Your task to perform on an android device: turn off location history Image 0: 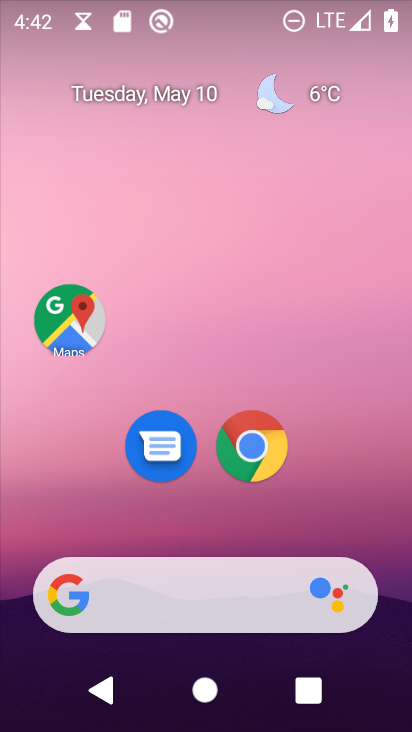
Step 0: drag from (203, 175) to (203, 116)
Your task to perform on an android device: turn off location history Image 1: 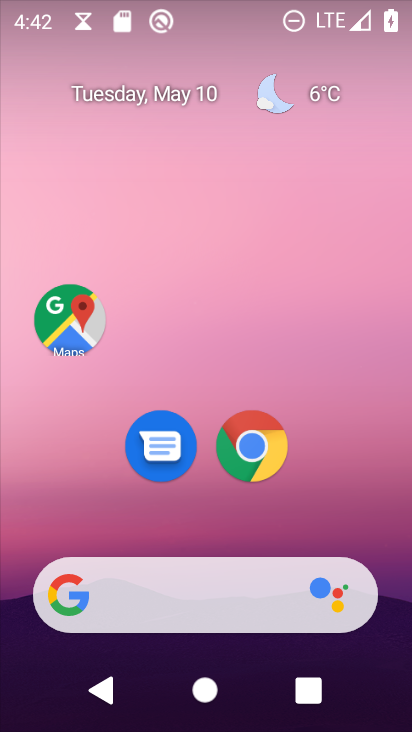
Step 1: drag from (209, 492) to (175, 61)
Your task to perform on an android device: turn off location history Image 2: 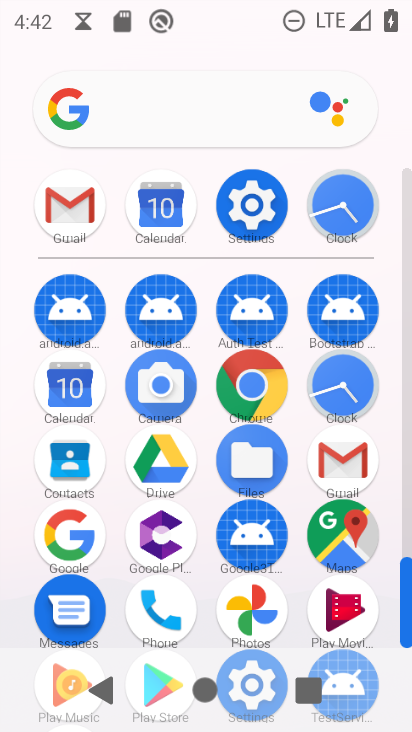
Step 2: click (242, 198)
Your task to perform on an android device: turn off location history Image 3: 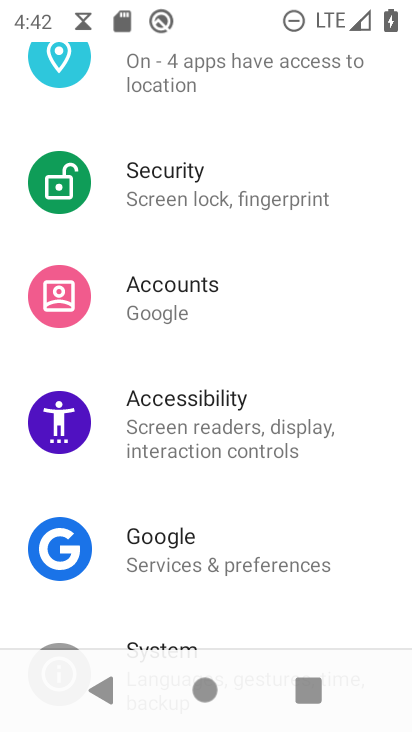
Step 3: click (213, 94)
Your task to perform on an android device: turn off location history Image 4: 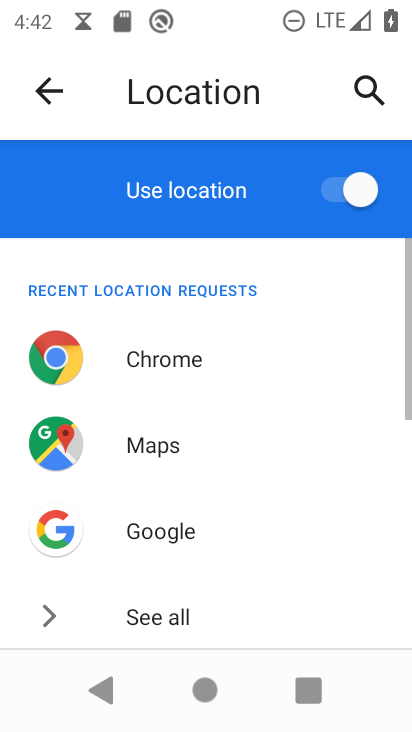
Step 4: drag from (256, 428) to (247, 122)
Your task to perform on an android device: turn off location history Image 5: 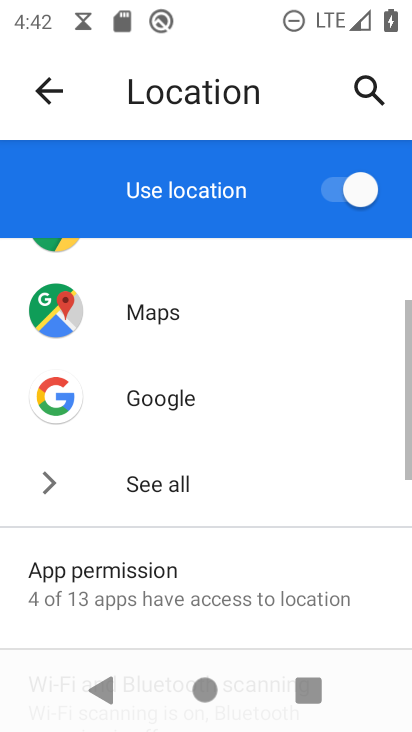
Step 5: drag from (237, 548) to (240, 60)
Your task to perform on an android device: turn off location history Image 6: 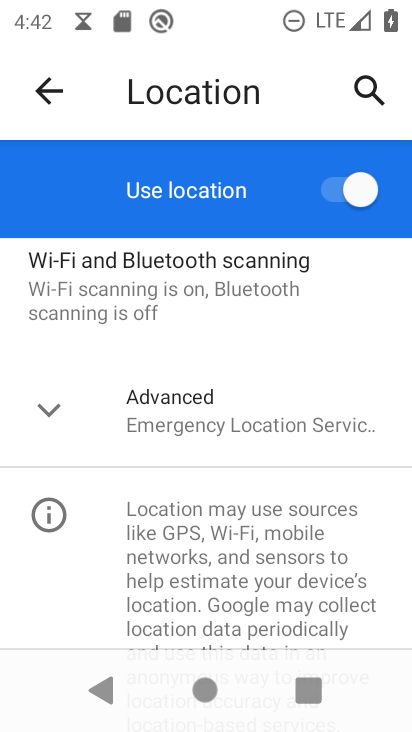
Step 6: click (183, 413)
Your task to perform on an android device: turn off location history Image 7: 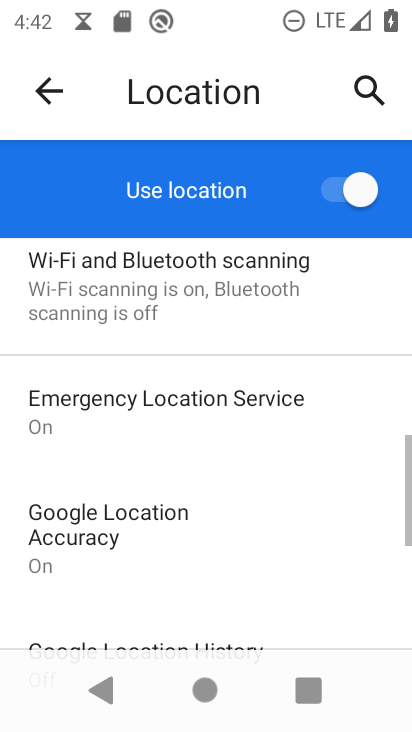
Step 7: drag from (225, 516) to (192, 141)
Your task to perform on an android device: turn off location history Image 8: 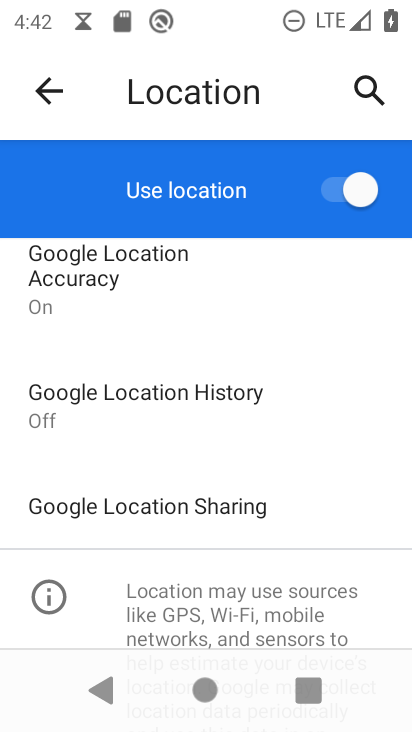
Step 8: click (208, 392)
Your task to perform on an android device: turn off location history Image 9: 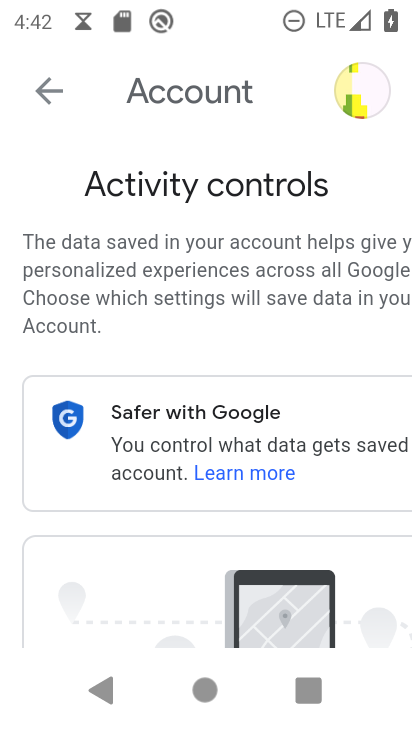
Step 9: task complete